Your task to perform on an android device: set the timer Image 0: 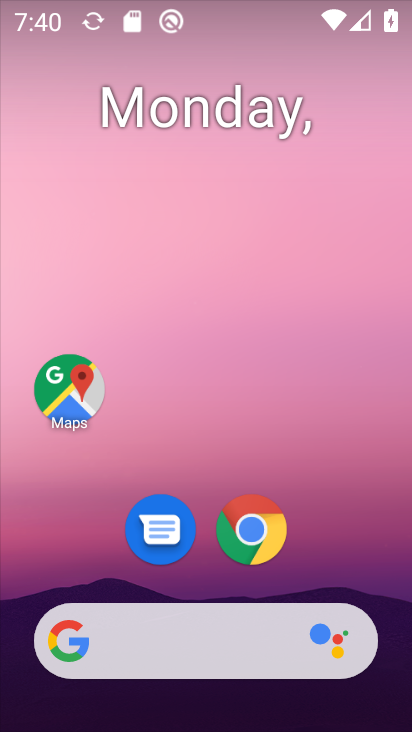
Step 0: drag from (195, 12) to (213, 536)
Your task to perform on an android device: set the timer Image 1: 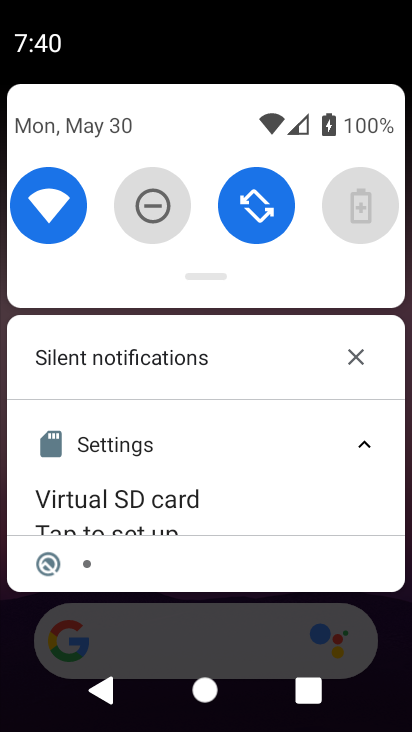
Step 1: press home button
Your task to perform on an android device: set the timer Image 2: 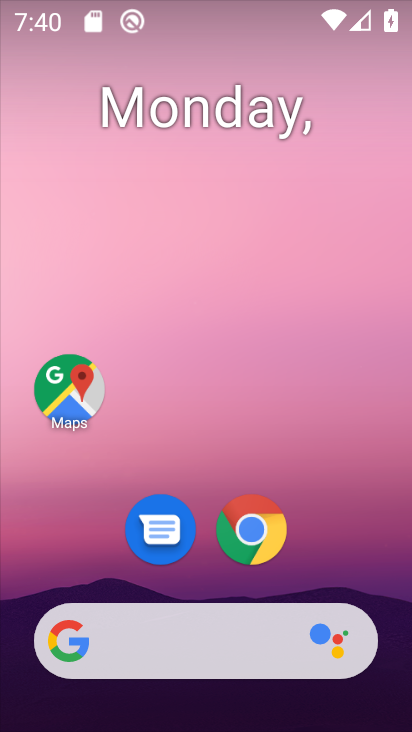
Step 2: drag from (221, 570) to (221, 126)
Your task to perform on an android device: set the timer Image 3: 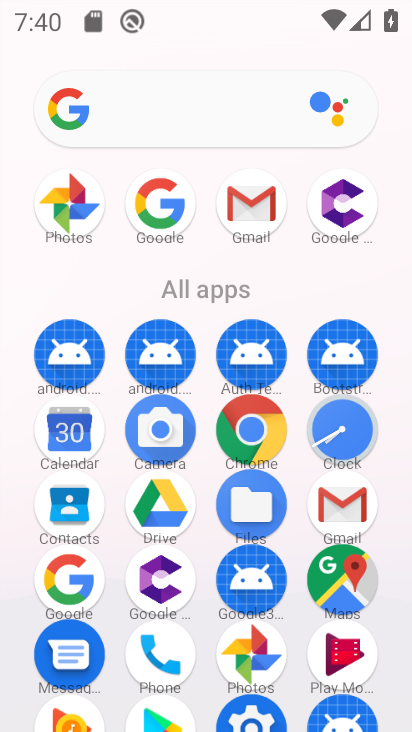
Step 3: click (344, 434)
Your task to perform on an android device: set the timer Image 4: 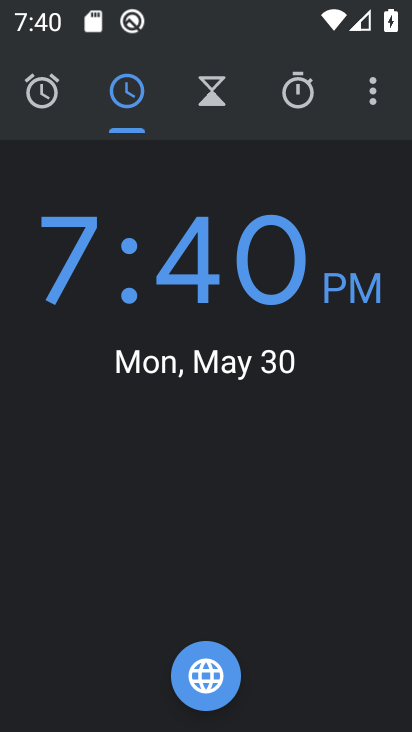
Step 4: click (205, 100)
Your task to perform on an android device: set the timer Image 5: 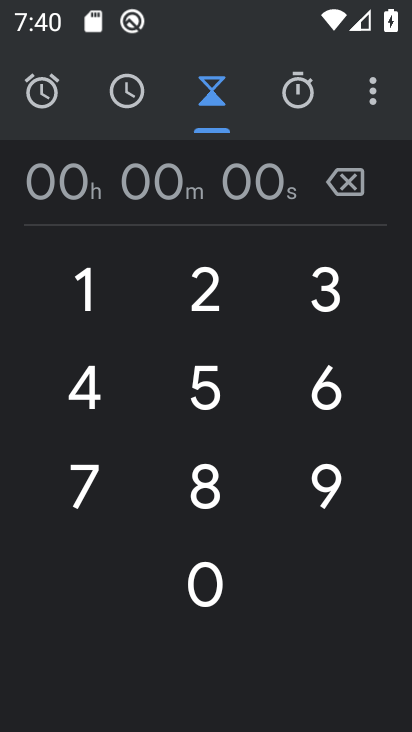
Step 5: click (207, 592)
Your task to perform on an android device: set the timer Image 6: 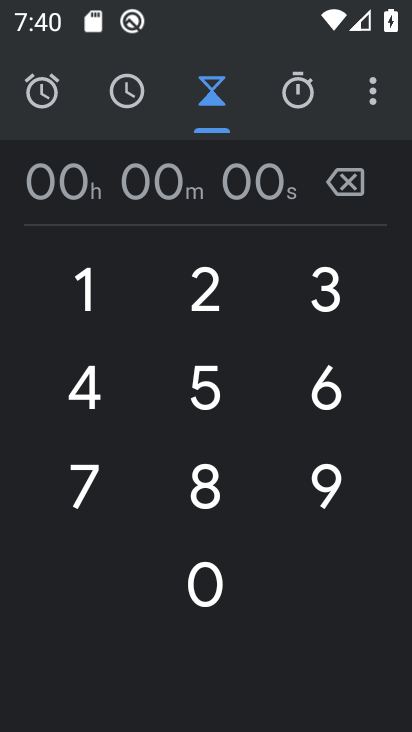
Step 6: click (213, 407)
Your task to perform on an android device: set the timer Image 7: 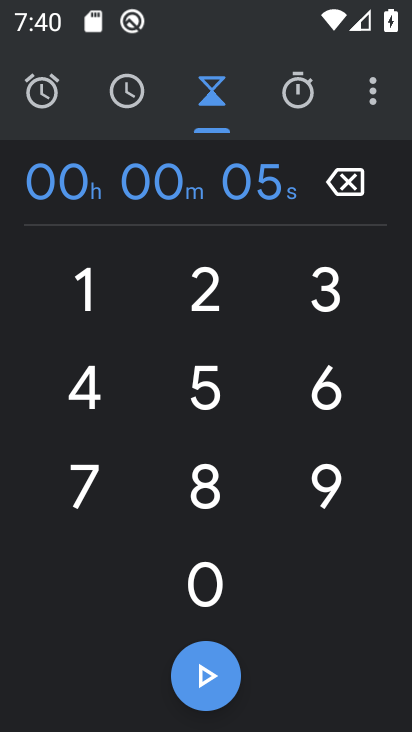
Step 7: click (215, 598)
Your task to perform on an android device: set the timer Image 8: 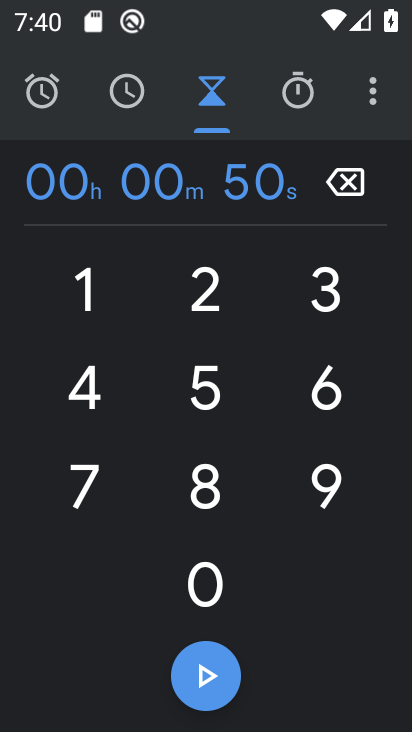
Step 8: click (215, 598)
Your task to perform on an android device: set the timer Image 9: 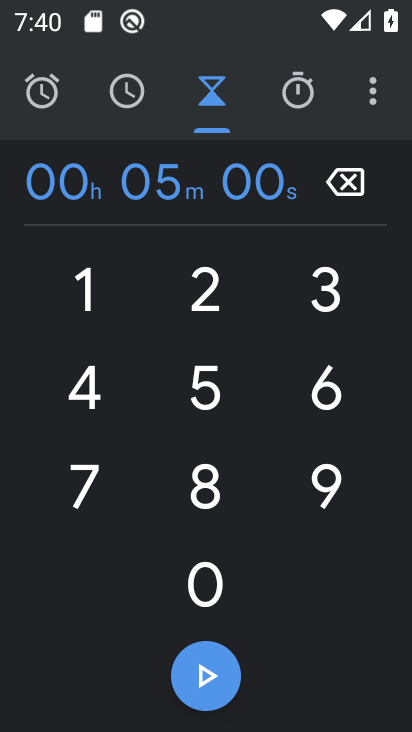
Step 9: click (217, 674)
Your task to perform on an android device: set the timer Image 10: 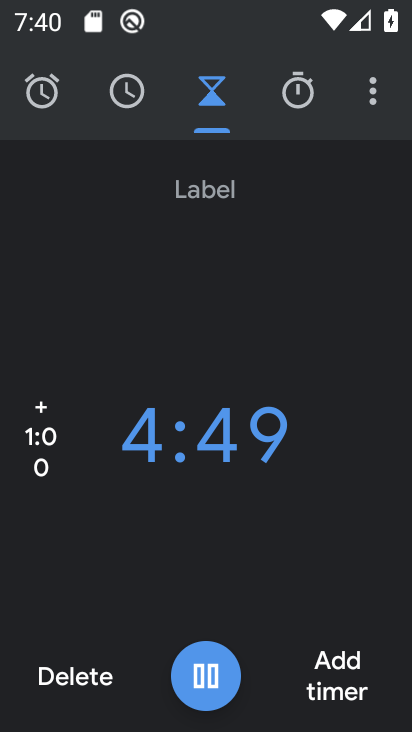
Step 10: task complete